Your task to perform on an android device: open chrome privacy settings Image 0: 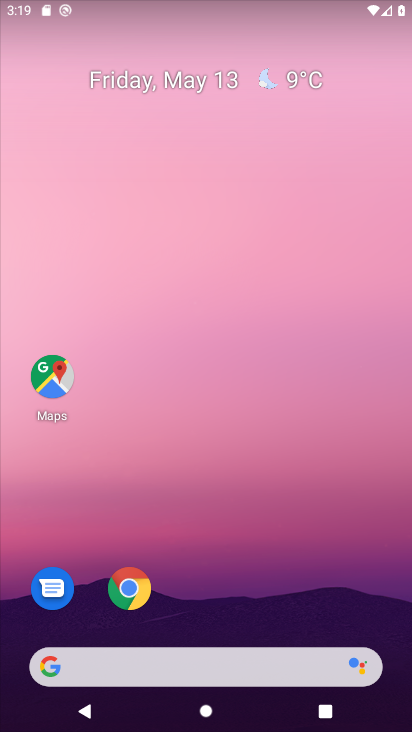
Step 0: drag from (314, 604) to (229, 50)
Your task to perform on an android device: open chrome privacy settings Image 1: 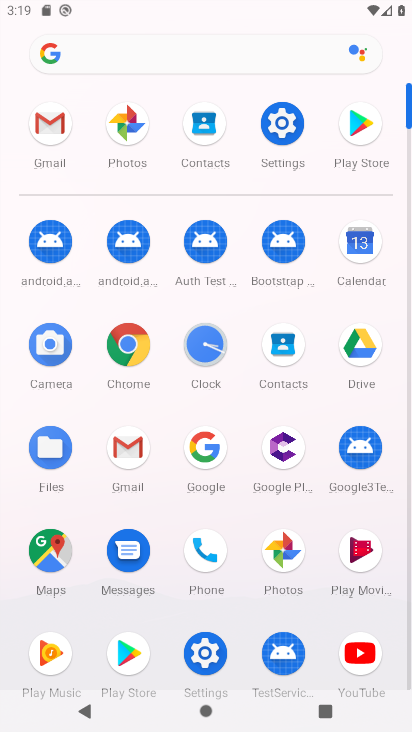
Step 1: click (290, 114)
Your task to perform on an android device: open chrome privacy settings Image 2: 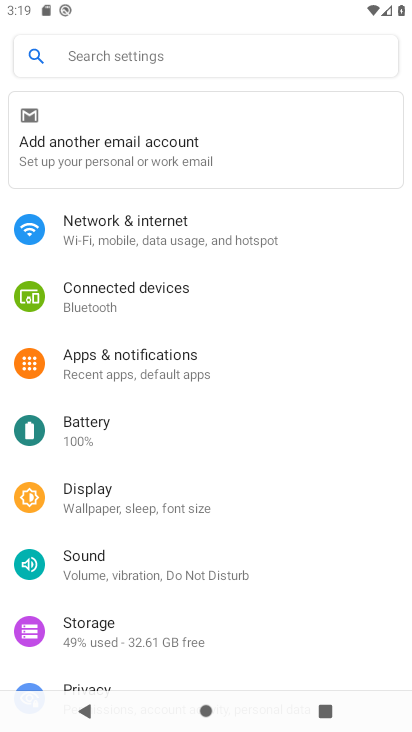
Step 2: press home button
Your task to perform on an android device: open chrome privacy settings Image 3: 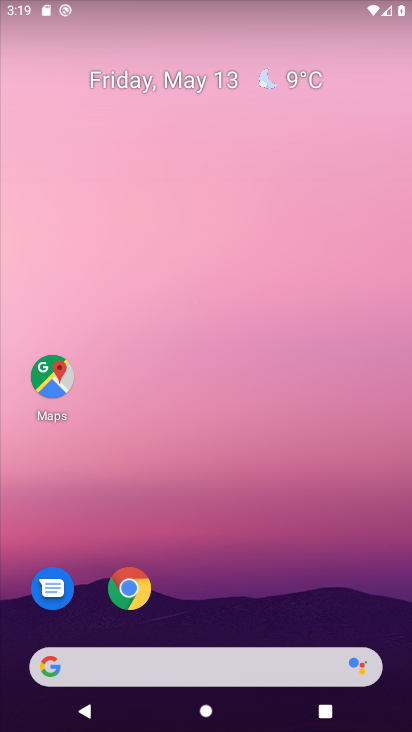
Step 3: click (142, 589)
Your task to perform on an android device: open chrome privacy settings Image 4: 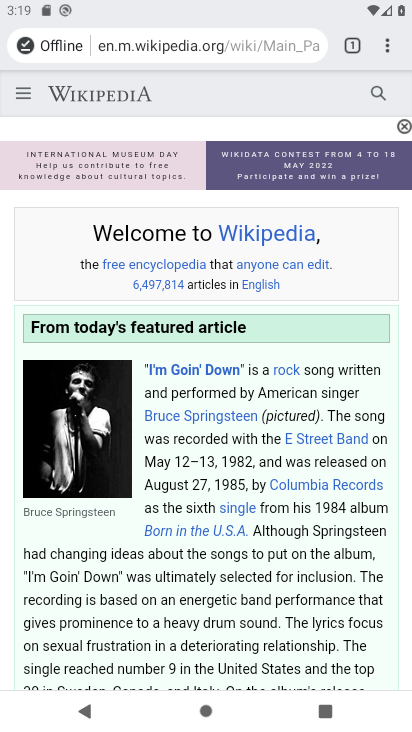
Step 4: click (391, 42)
Your task to perform on an android device: open chrome privacy settings Image 5: 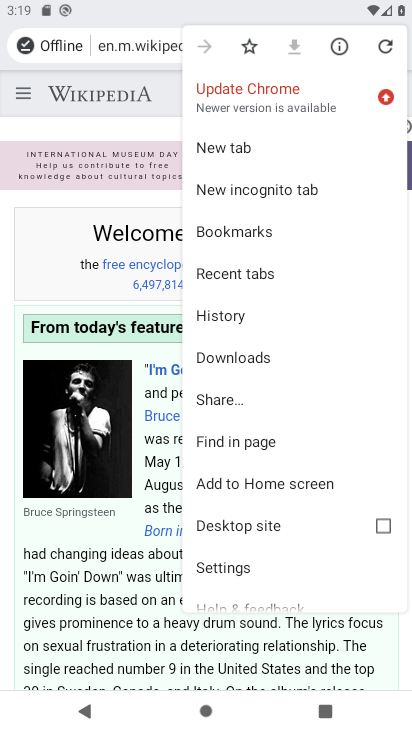
Step 5: click (285, 559)
Your task to perform on an android device: open chrome privacy settings Image 6: 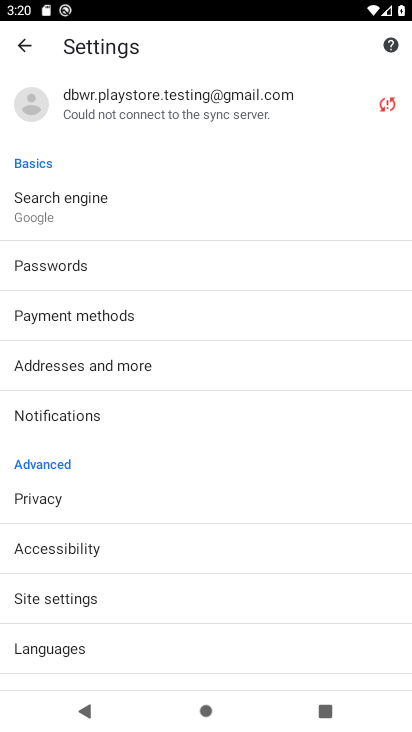
Step 6: click (42, 501)
Your task to perform on an android device: open chrome privacy settings Image 7: 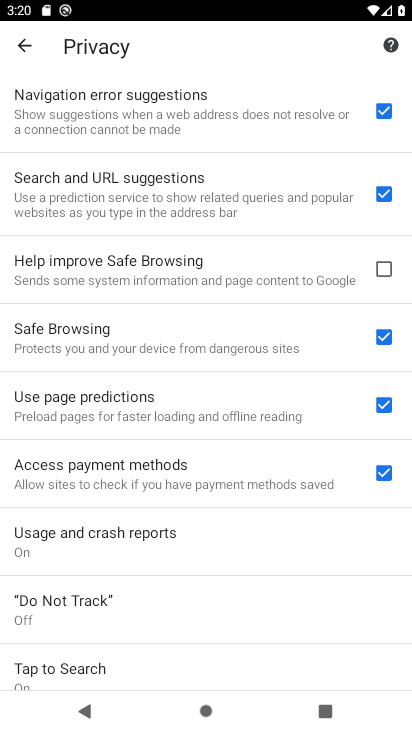
Step 7: task complete